Your task to perform on an android device: turn on priority inbox in the gmail app Image 0: 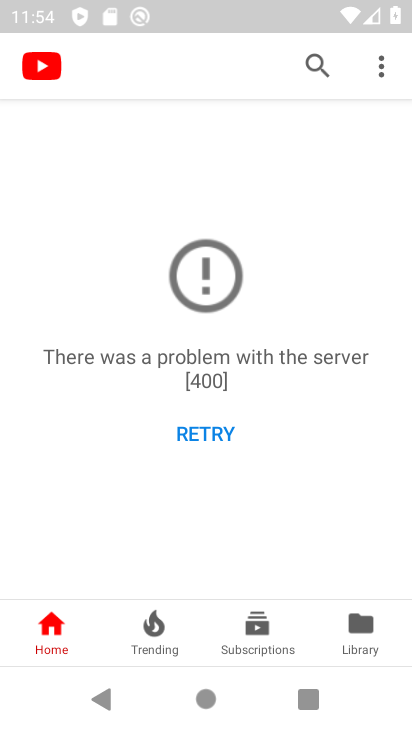
Step 0: press home button
Your task to perform on an android device: turn on priority inbox in the gmail app Image 1: 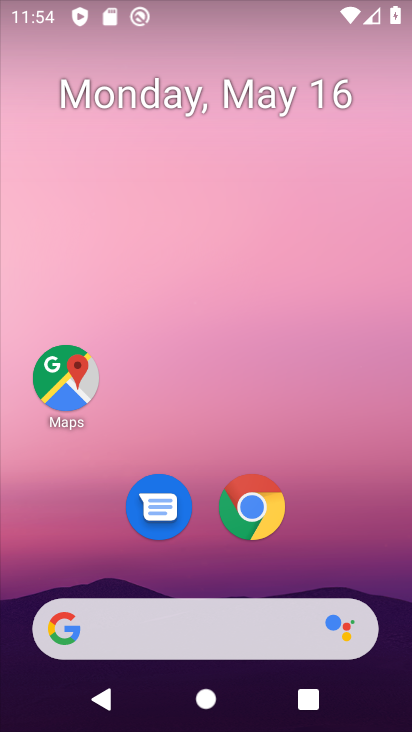
Step 1: drag from (378, 609) to (308, 273)
Your task to perform on an android device: turn on priority inbox in the gmail app Image 2: 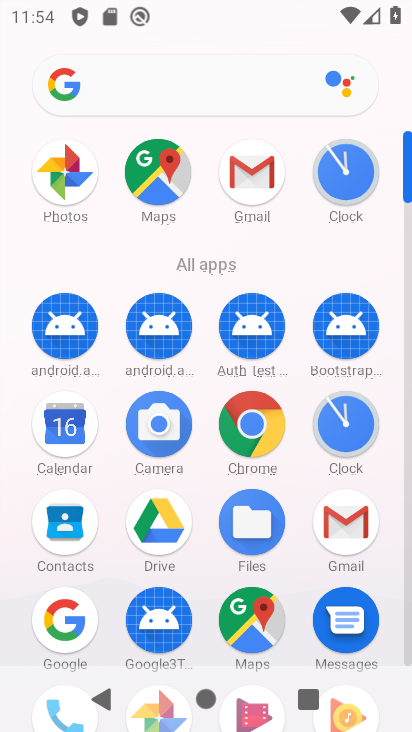
Step 2: click (337, 515)
Your task to perform on an android device: turn on priority inbox in the gmail app Image 3: 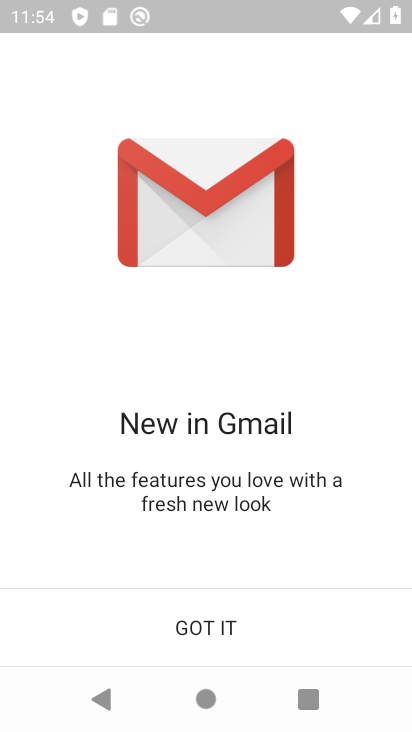
Step 3: click (191, 624)
Your task to perform on an android device: turn on priority inbox in the gmail app Image 4: 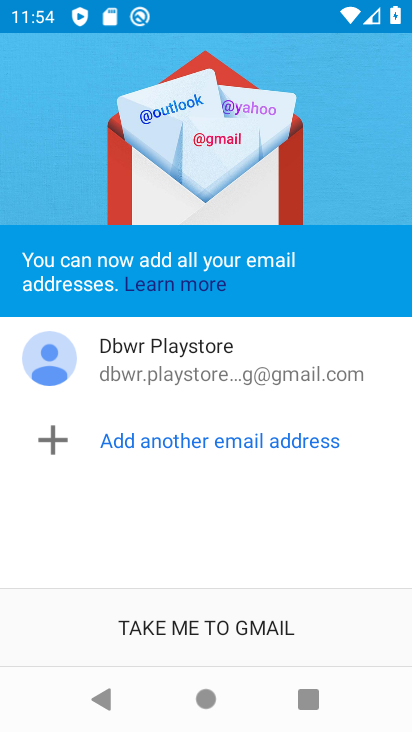
Step 4: click (195, 627)
Your task to perform on an android device: turn on priority inbox in the gmail app Image 5: 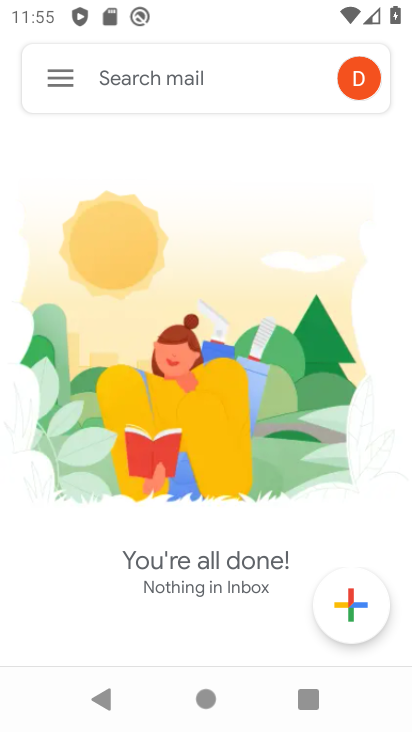
Step 5: click (50, 76)
Your task to perform on an android device: turn on priority inbox in the gmail app Image 6: 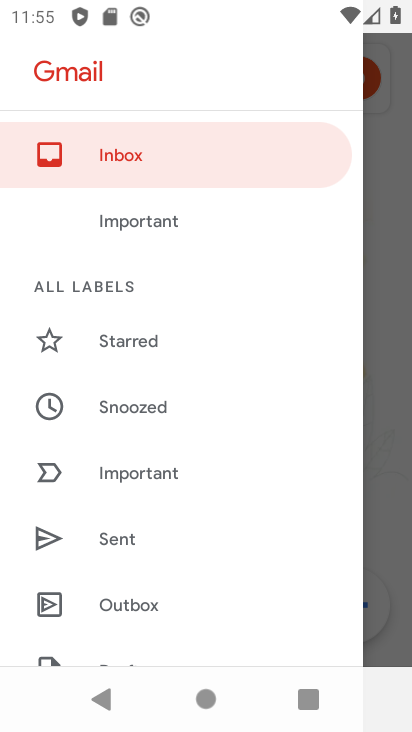
Step 6: drag from (210, 485) to (207, 332)
Your task to perform on an android device: turn on priority inbox in the gmail app Image 7: 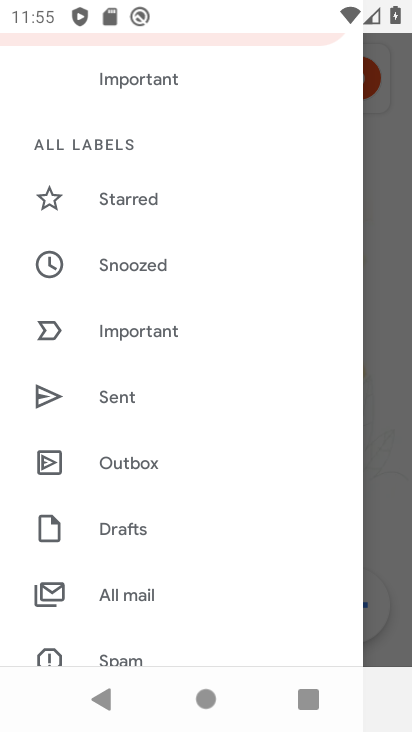
Step 7: drag from (241, 571) to (218, 432)
Your task to perform on an android device: turn on priority inbox in the gmail app Image 8: 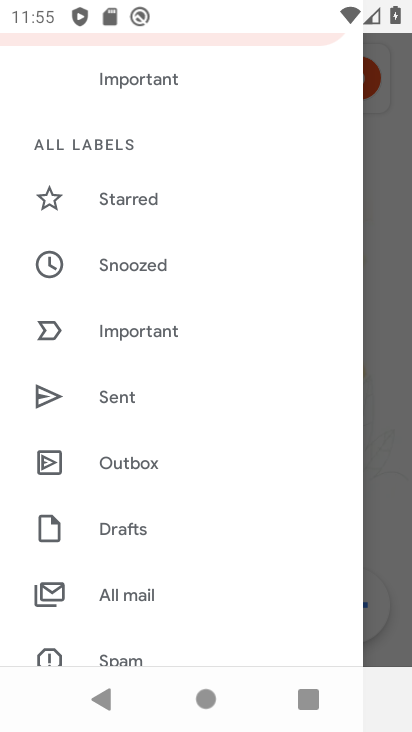
Step 8: drag from (232, 436) to (229, 322)
Your task to perform on an android device: turn on priority inbox in the gmail app Image 9: 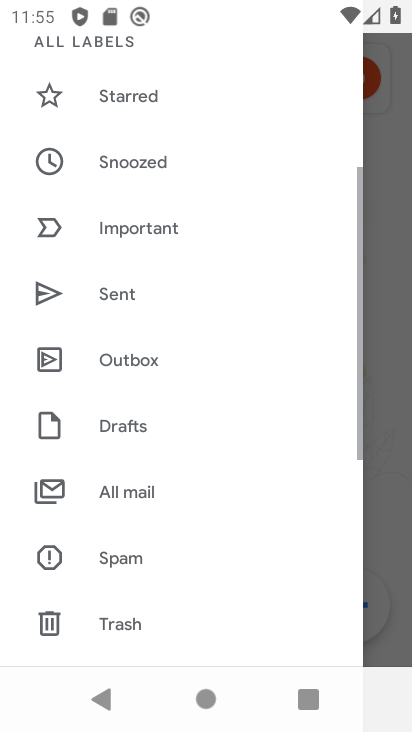
Step 9: drag from (245, 571) to (216, 396)
Your task to perform on an android device: turn on priority inbox in the gmail app Image 10: 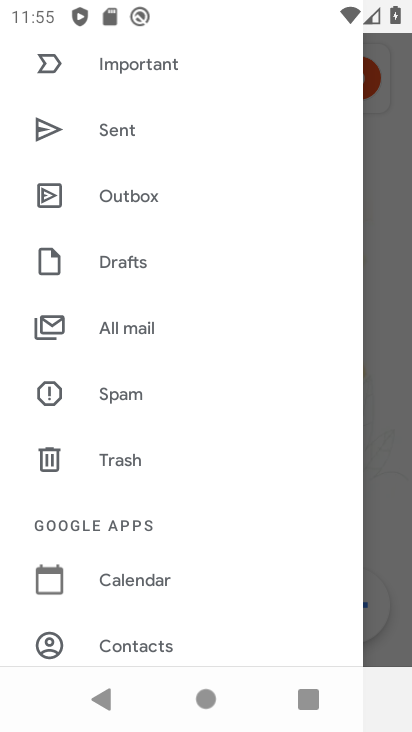
Step 10: drag from (272, 577) to (215, 274)
Your task to perform on an android device: turn on priority inbox in the gmail app Image 11: 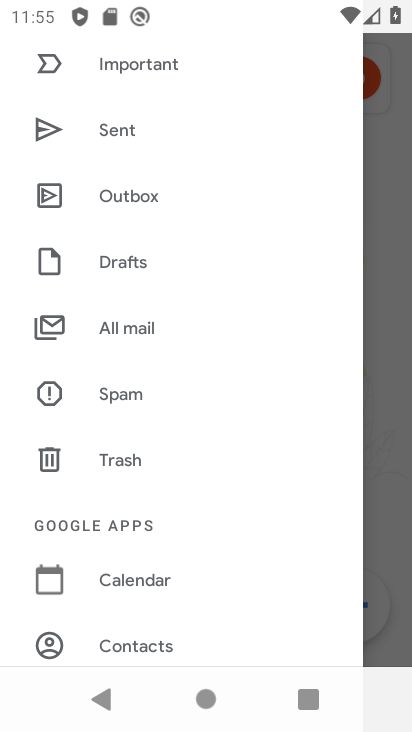
Step 11: drag from (253, 571) to (251, 344)
Your task to perform on an android device: turn on priority inbox in the gmail app Image 12: 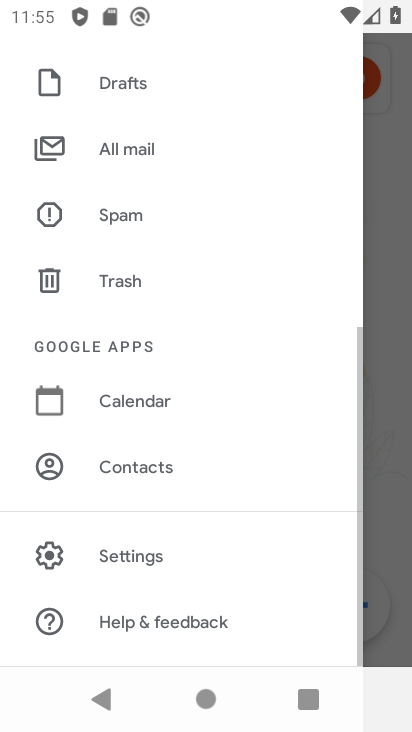
Step 12: click (140, 554)
Your task to perform on an android device: turn on priority inbox in the gmail app Image 13: 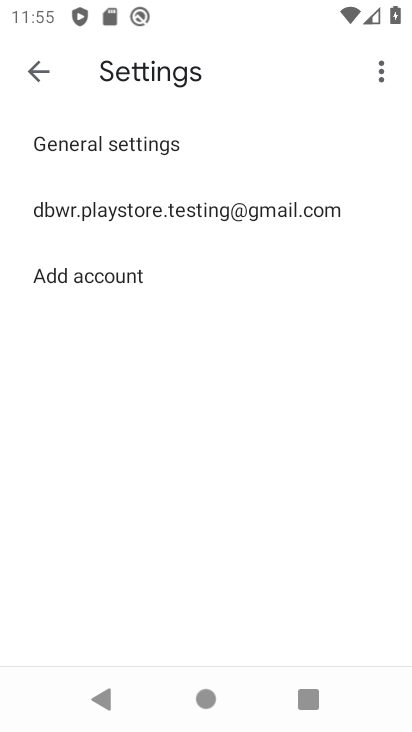
Step 13: click (168, 207)
Your task to perform on an android device: turn on priority inbox in the gmail app Image 14: 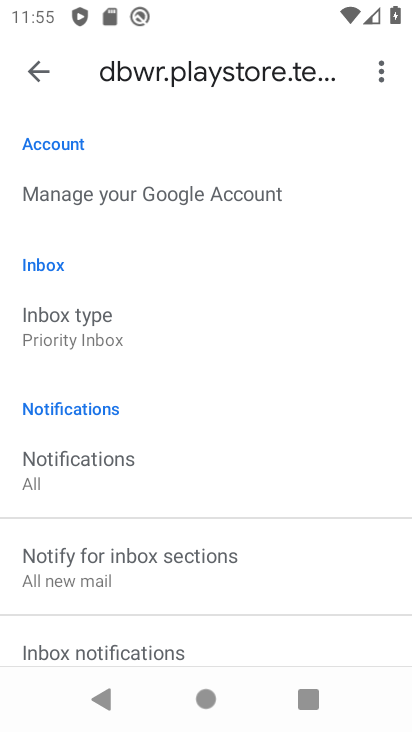
Step 14: click (91, 337)
Your task to perform on an android device: turn on priority inbox in the gmail app Image 15: 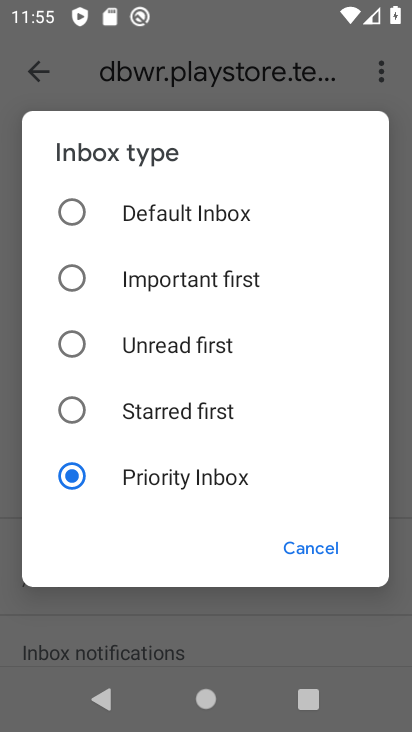
Step 15: task complete